Your task to perform on an android device: find snoozed emails in the gmail app Image 0: 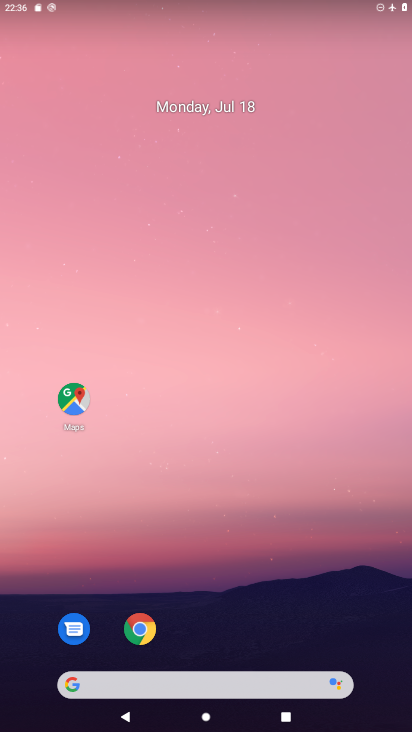
Step 0: drag from (292, 657) to (159, 117)
Your task to perform on an android device: find snoozed emails in the gmail app Image 1: 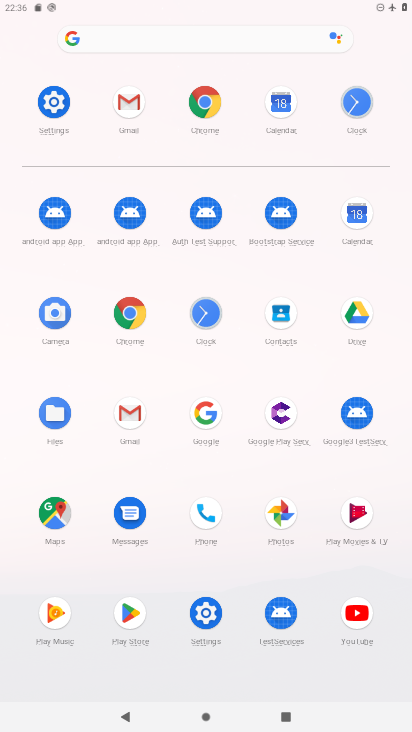
Step 1: click (136, 109)
Your task to perform on an android device: find snoozed emails in the gmail app Image 2: 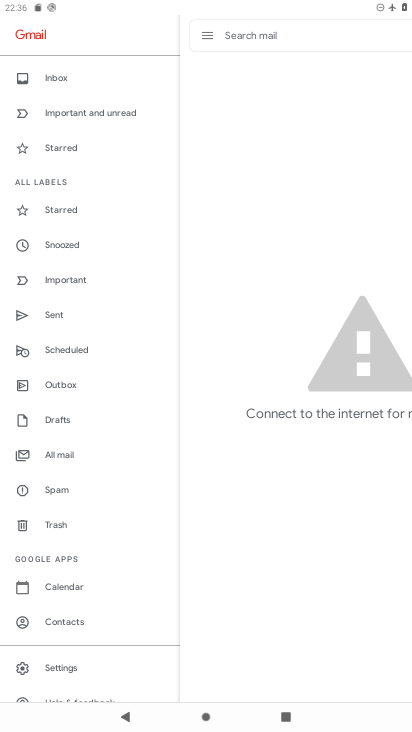
Step 2: click (68, 248)
Your task to perform on an android device: find snoozed emails in the gmail app Image 3: 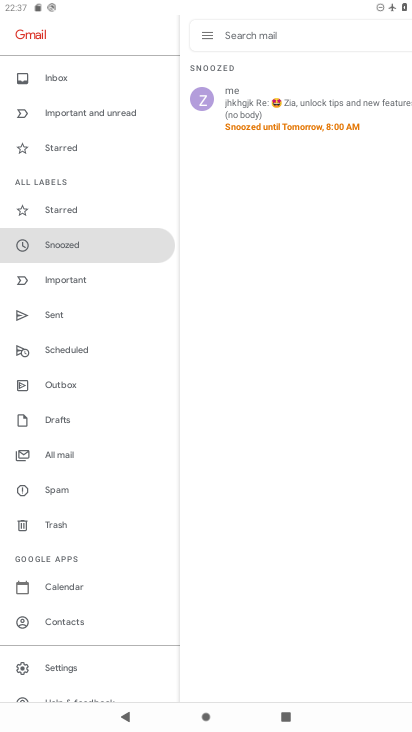
Step 3: task complete